Your task to perform on an android device: Open Youtube and go to "Your channel" Image 0: 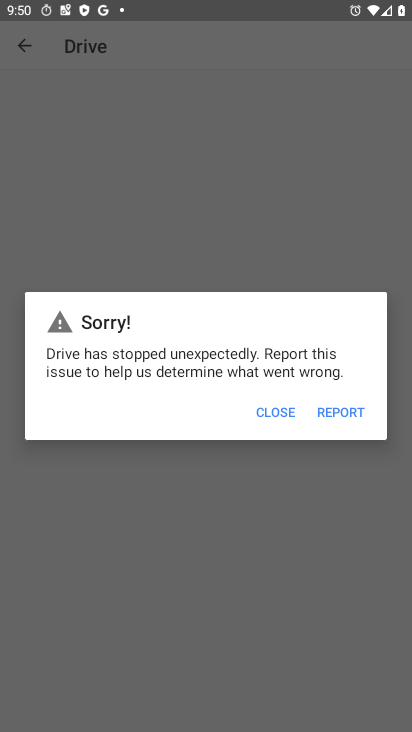
Step 0: press home button
Your task to perform on an android device: Open Youtube and go to "Your channel" Image 1: 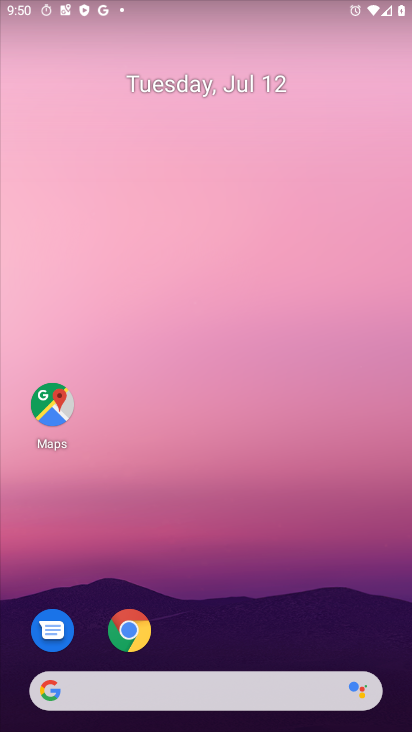
Step 1: drag from (263, 531) to (323, 107)
Your task to perform on an android device: Open Youtube and go to "Your channel" Image 2: 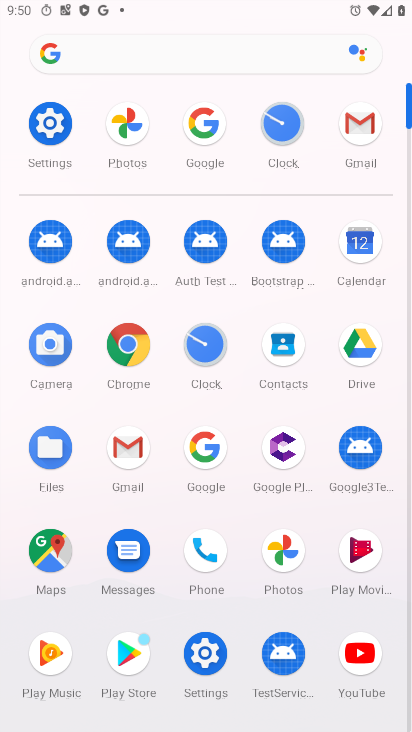
Step 2: click (362, 652)
Your task to perform on an android device: Open Youtube and go to "Your channel" Image 3: 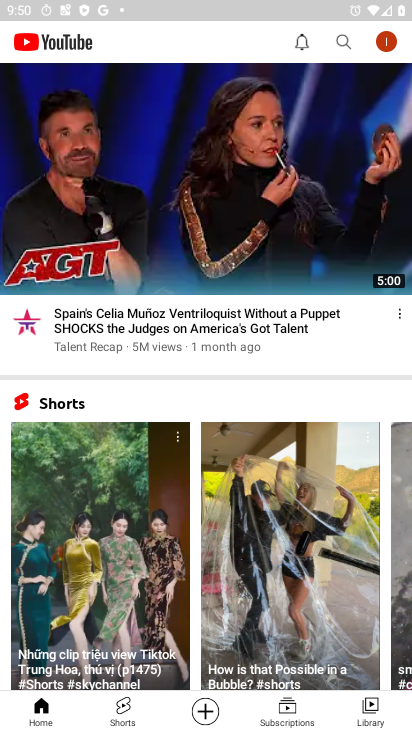
Step 3: click (387, 43)
Your task to perform on an android device: Open Youtube and go to "Your channel" Image 4: 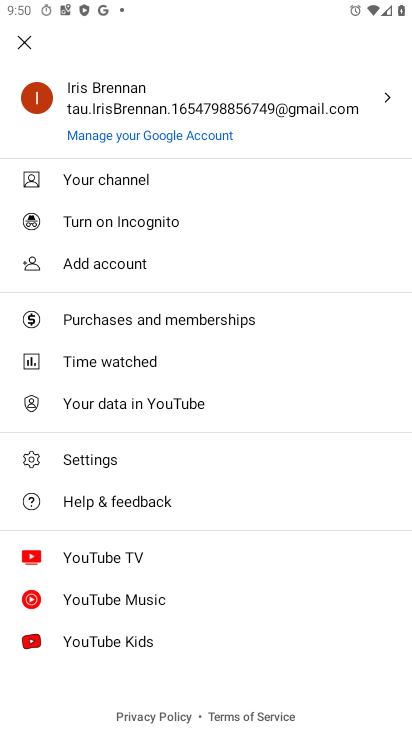
Step 4: click (112, 179)
Your task to perform on an android device: Open Youtube and go to "Your channel" Image 5: 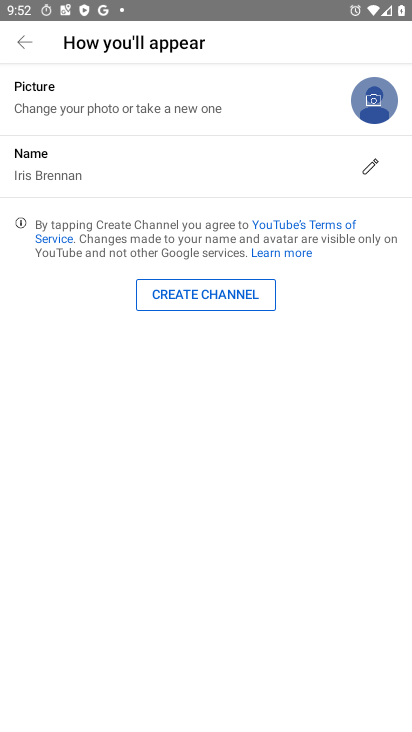
Step 5: task complete